Your task to perform on an android device: Search for the best running shoes on Nike. Image 0: 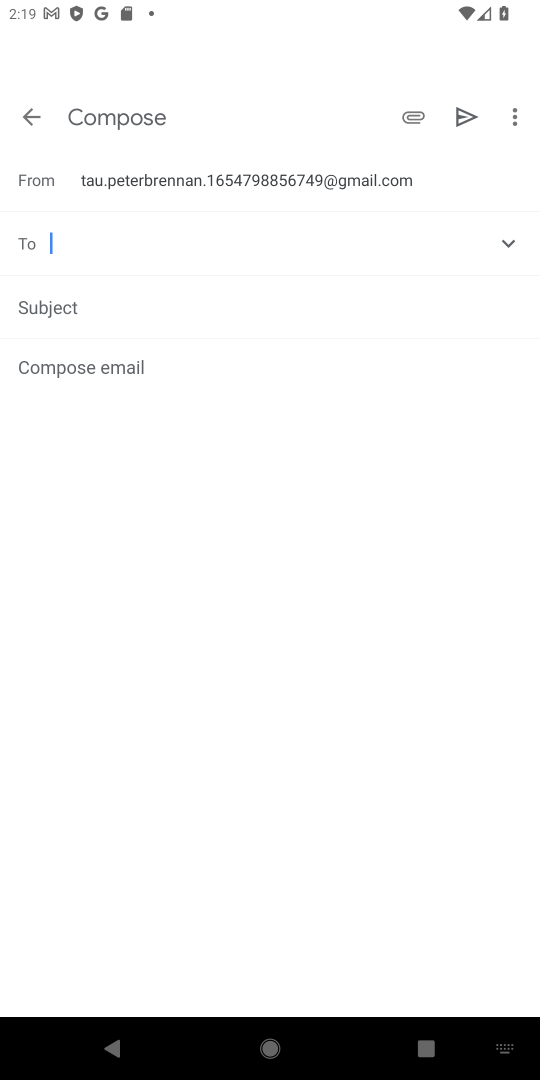
Step 0: press home button
Your task to perform on an android device: Search for the best running shoes on Nike. Image 1: 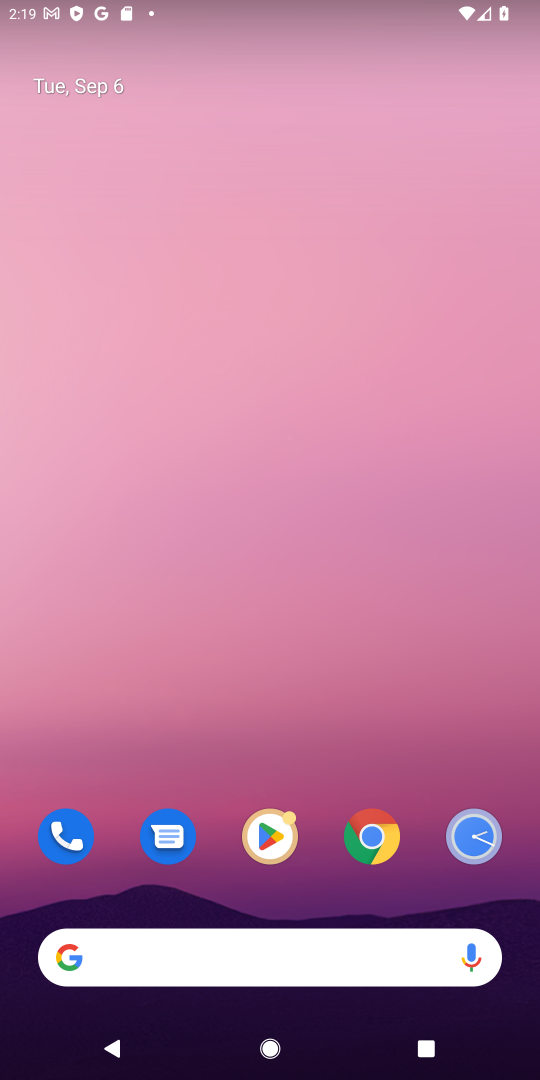
Step 1: click (301, 960)
Your task to perform on an android device: Search for the best running shoes on Nike. Image 2: 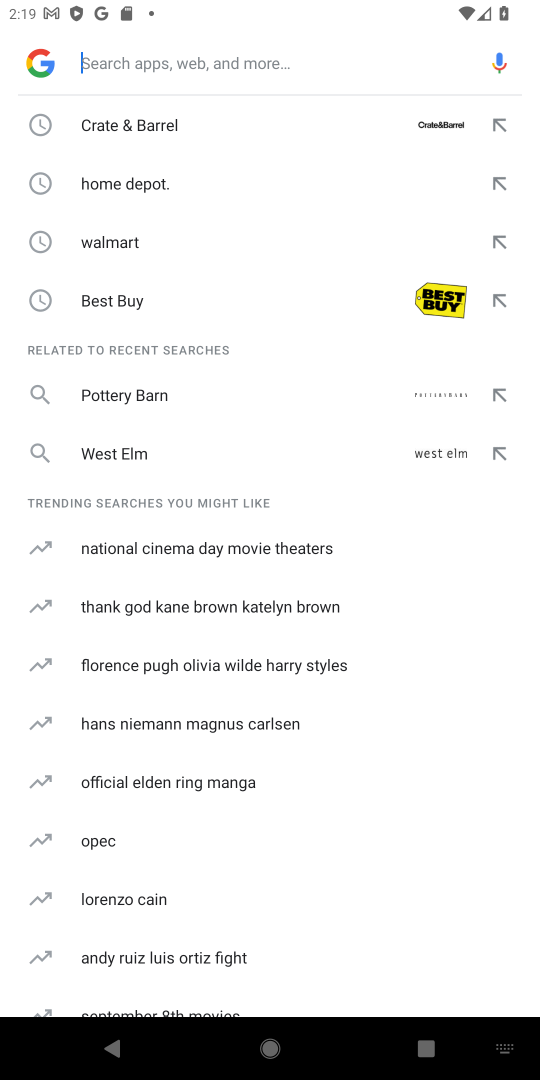
Step 2: type "nike"
Your task to perform on an android device: Search for the best running shoes on Nike. Image 3: 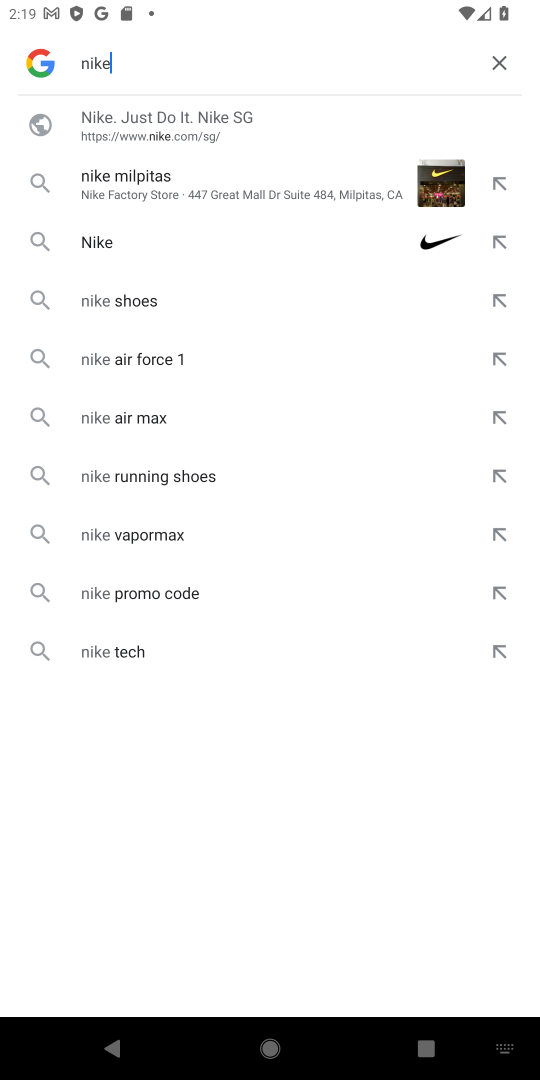
Step 3: click (133, 120)
Your task to perform on an android device: Search for the best running shoes on Nike. Image 4: 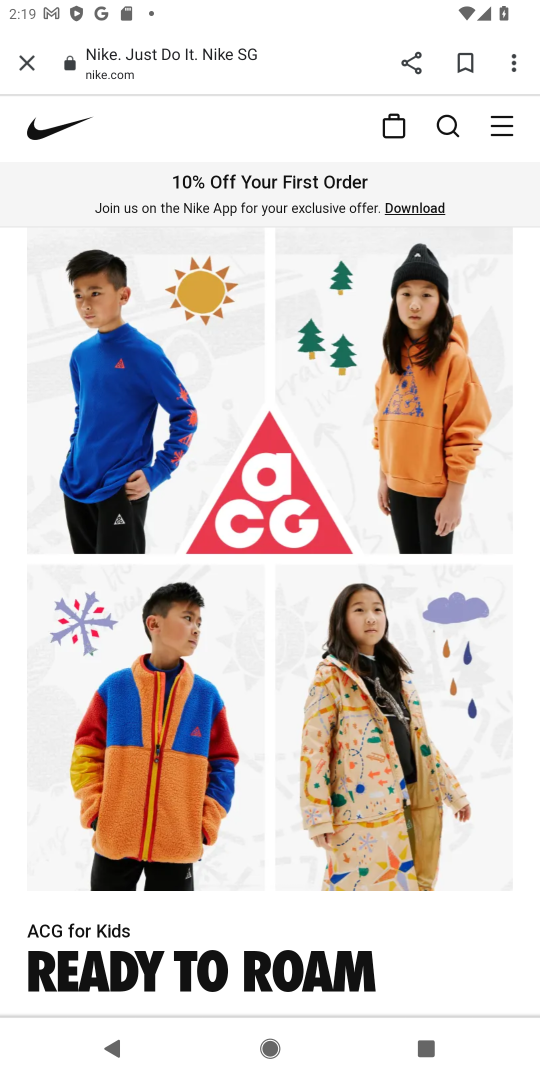
Step 4: click (446, 130)
Your task to perform on an android device: Search for the best running shoes on Nike. Image 5: 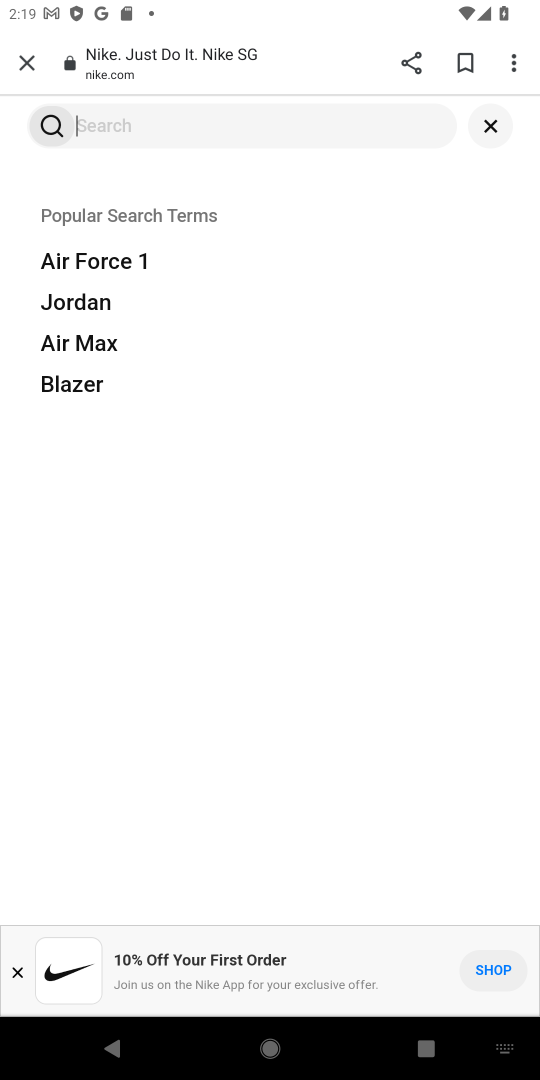
Step 5: type " the best running shoes"
Your task to perform on an android device: Search for the best running shoes on Nike. Image 6: 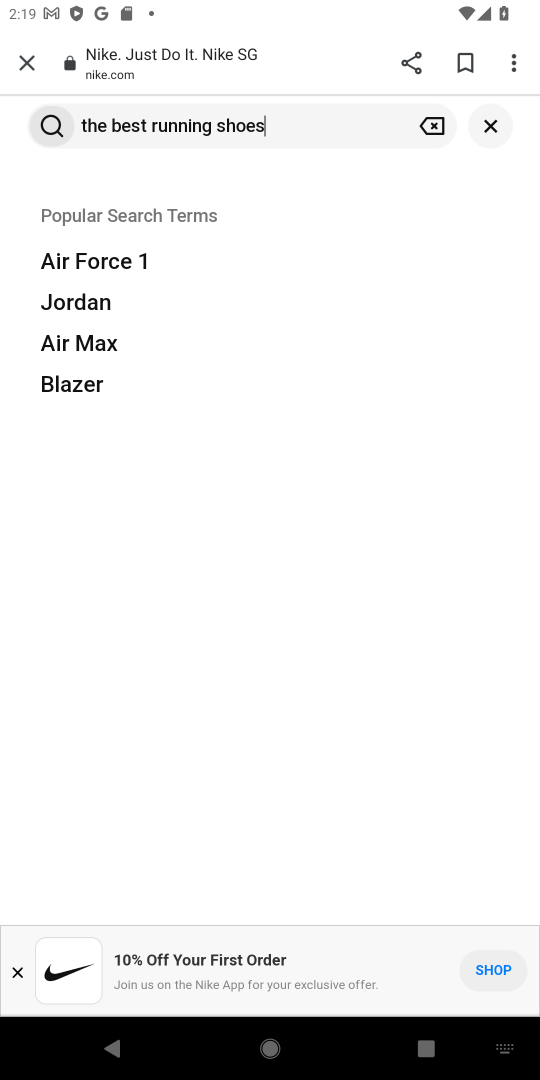
Step 6: click (45, 117)
Your task to perform on an android device: Search for the best running shoes on Nike. Image 7: 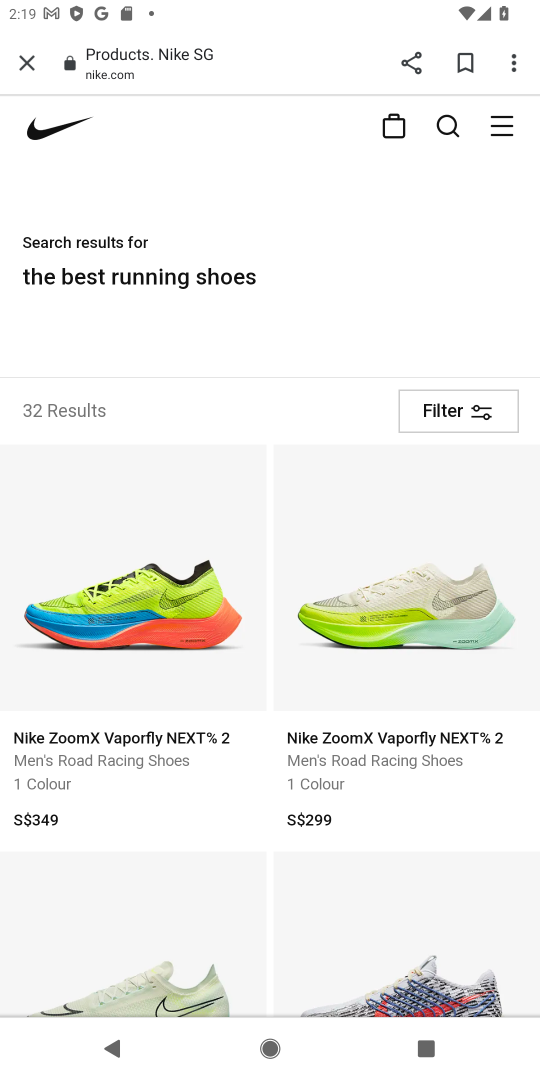
Step 7: task complete